Your task to perform on an android device: Is it going to rain this weekend? Image 0: 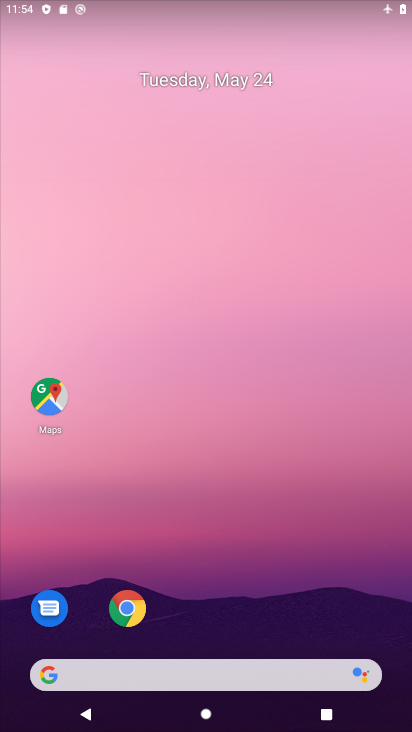
Step 0: drag from (294, 564) to (190, 179)
Your task to perform on an android device: Is it going to rain this weekend? Image 1: 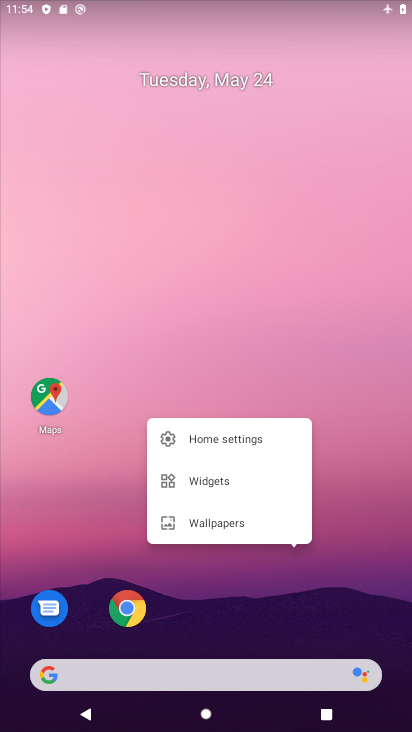
Step 1: click (153, 299)
Your task to perform on an android device: Is it going to rain this weekend? Image 2: 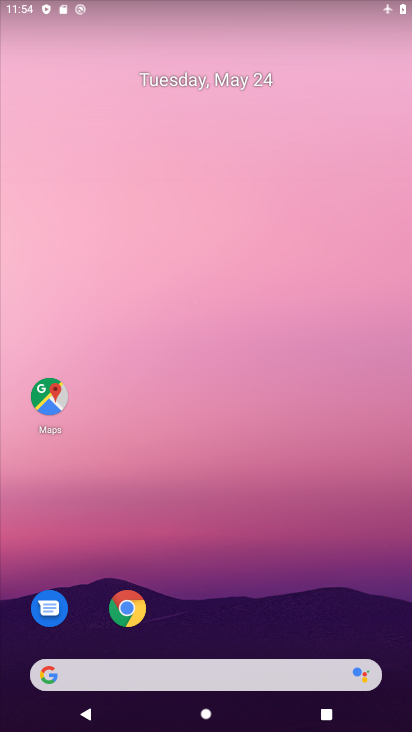
Step 2: drag from (199, 609) to (205, 307)
Your task to perform on an android device: Is it going to rain this weekend? Image 3: 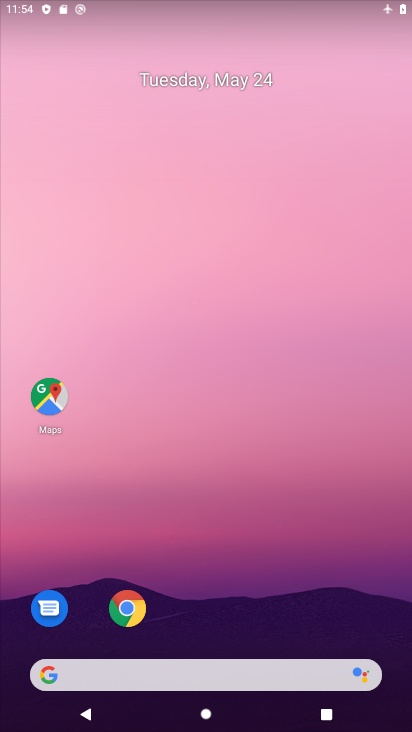
Step 3: drag from (287, 633) to (246, 209)
Your task to perform on an android device: Is it going to rain this weekend? Image 4: 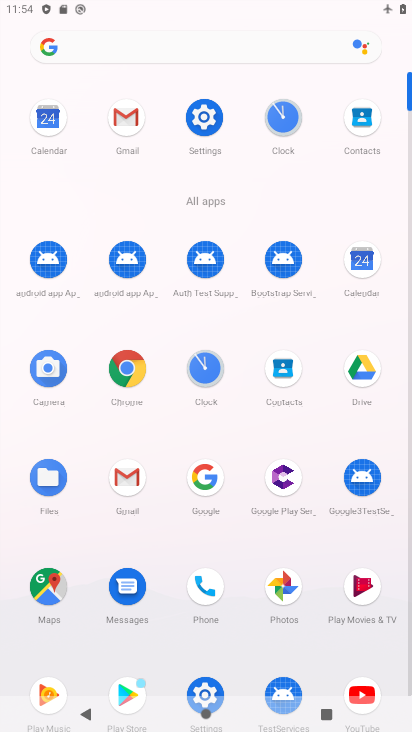
Step 4: click (58, 128)
Your task to perform on an android device: Is it going to rain this weekend? Image 5: 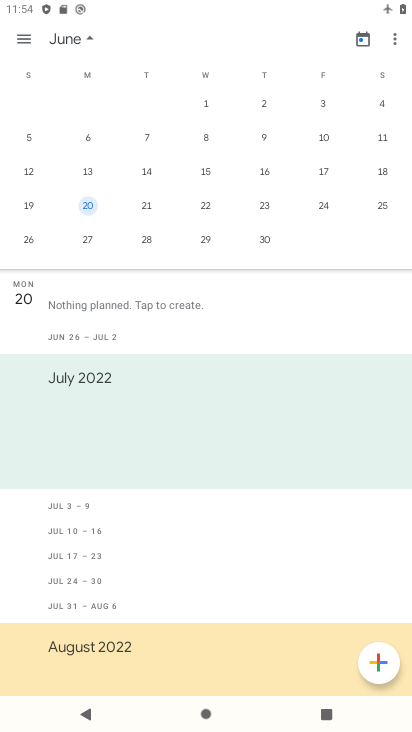
Step 5: drag from (50, 138) to (395, 183)
Your task to perform on an android device: Is it going to rain this weekend? Image 6: 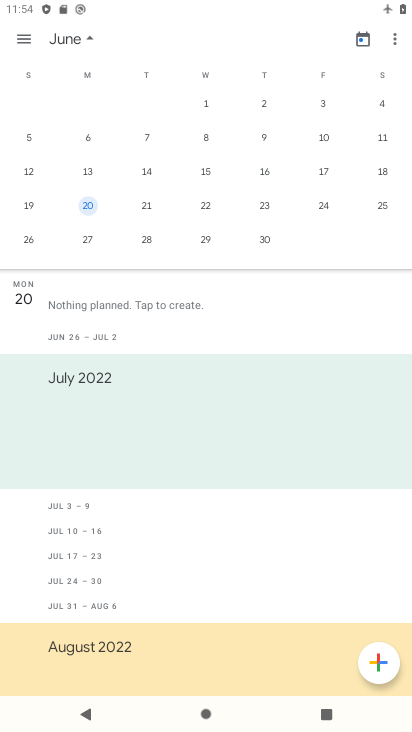
Step 6: drag from (70, 145) to (390, 257)
Your task to perform on an android device: Is it going to rain this weekend? Image 7: 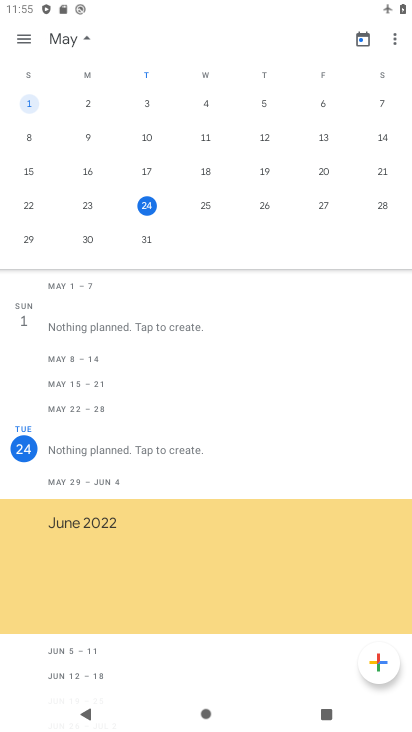
Step 7: click (199, 712)
Your task to perform on an android device: Is it going to rain this weekend? Image 8: 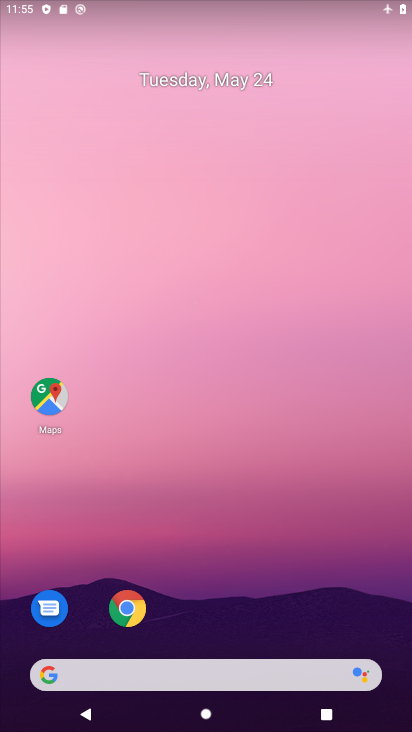
Step 8: click (199, 671)
Your task to perform on an android device: Is it going to rain this weekend? Image 9: 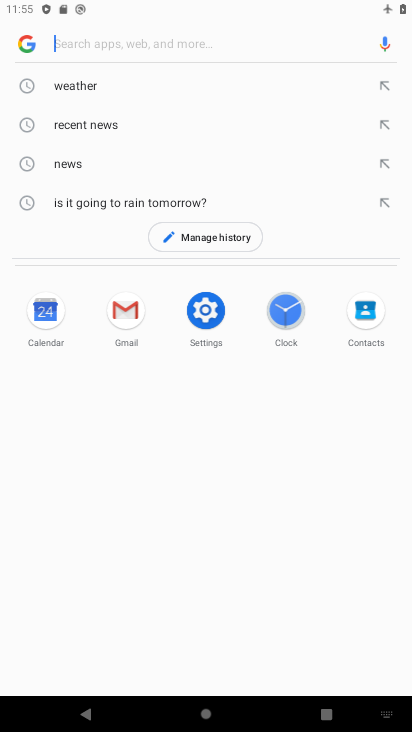
Step 9: click (128, 82)
Your task to perform on an android device: Is it going to rain this weekend? Image 10: 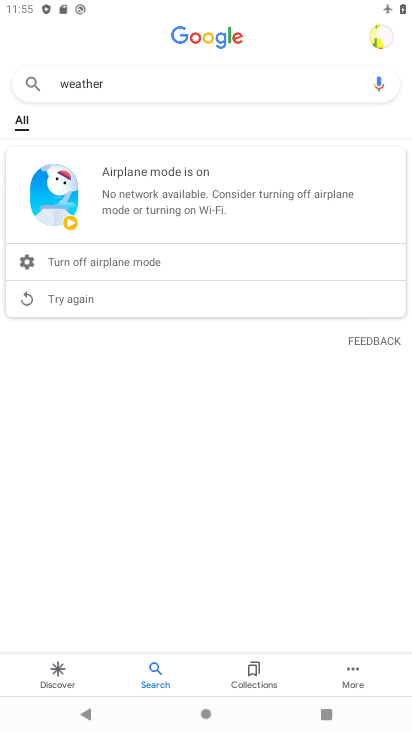
Step 10: task complete